Your task to perform on an android device: Open Chrome and go to the settings page Image 0: 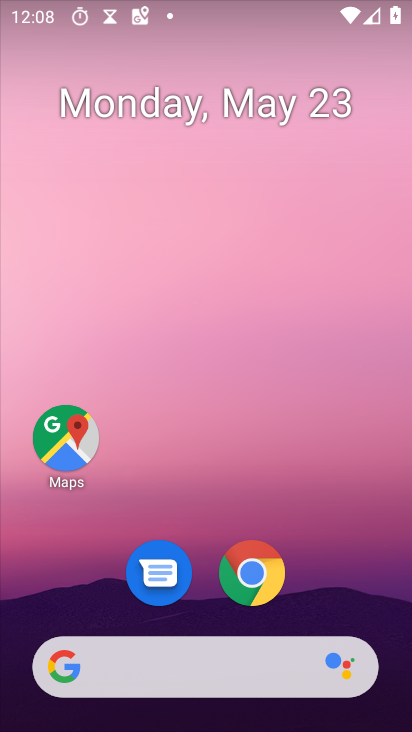
Step 0: press home button
Your task to perform on an android device: Open Chrome and go to the settings page Image 1: 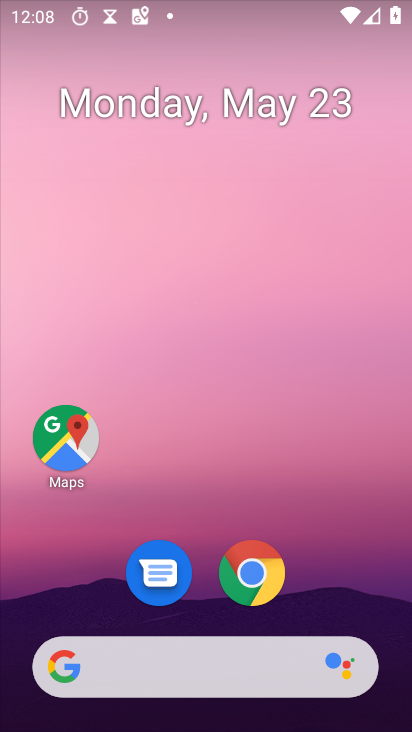
Step 1: click (258, 580)
Your task to perform on an android device: Open Chrome and go to the settings page Image 2: 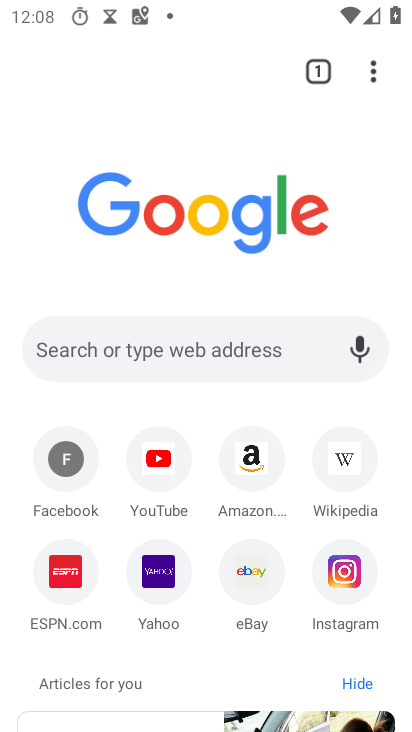
Step 2: task complete